Your task to perform on an android device: turn on showing notifications on the lock screen Image 0: 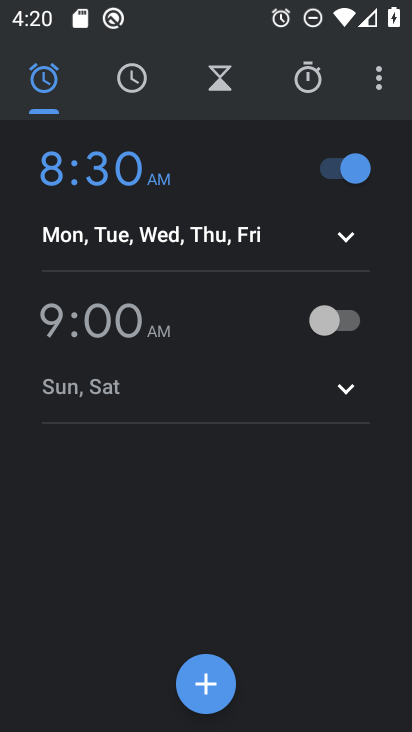
Step 0: press home button
Your task to perform on an android device: turn on showing notifications on the lock screen Image 1: 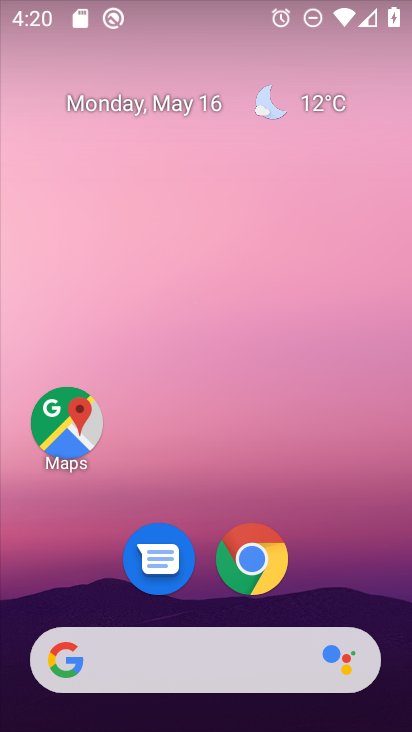
Step 1: drag from (342, 556) to (250, 29)
Your task to perform on an android device: turn on showing notifications on the lock screen Image 2: 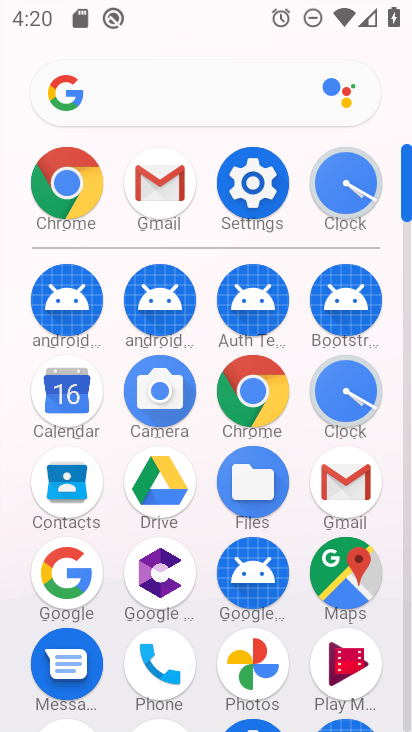
Step 2: click (261, 202)
Your task to perform on an android device: turn on showing notifications on the lock screen Image 3: 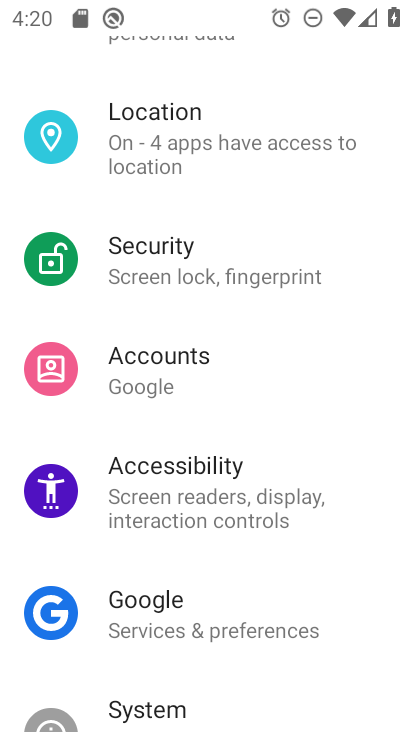
Step 3: drag from (245, 537) to (166, 202)
Your task to perform on an android device: turn on showing notifications on the lock screen Image 4: 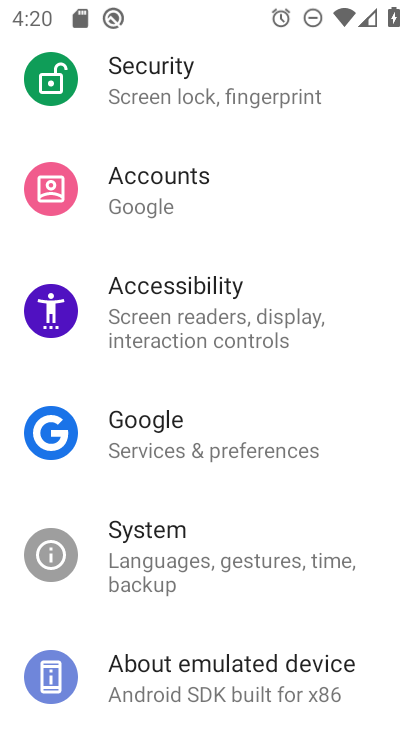
Step 4: drag from (171, 140) to (123, 670)
Your task to perform on an android device: turn on showing notifications on the lock screen Image 5: 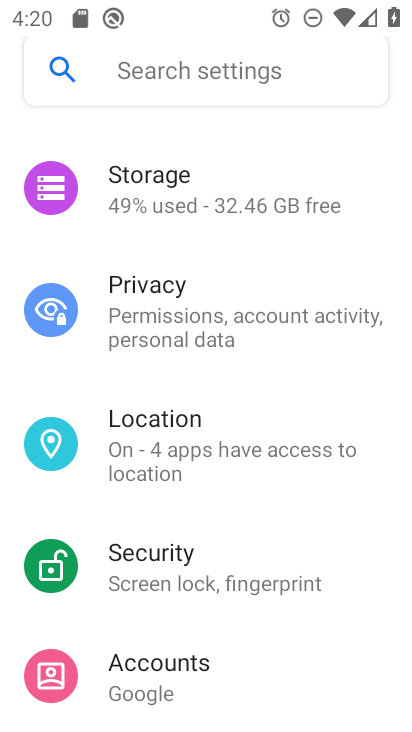
Step 5: drag from (165, 338) to (119, 712)
Your task to perform on an android device: turn on showing notifications on the lock screen Image 6: 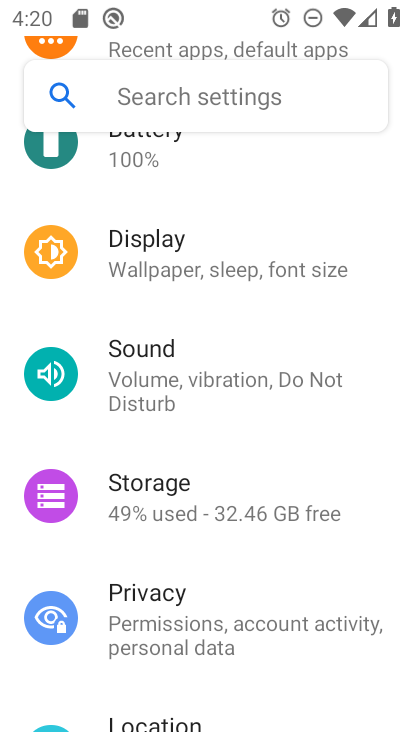
Step 6: drag from (159, 321) to (142, 632)
Your task to perform on an android device: turn on showing notifications on the lock screen Image 7: 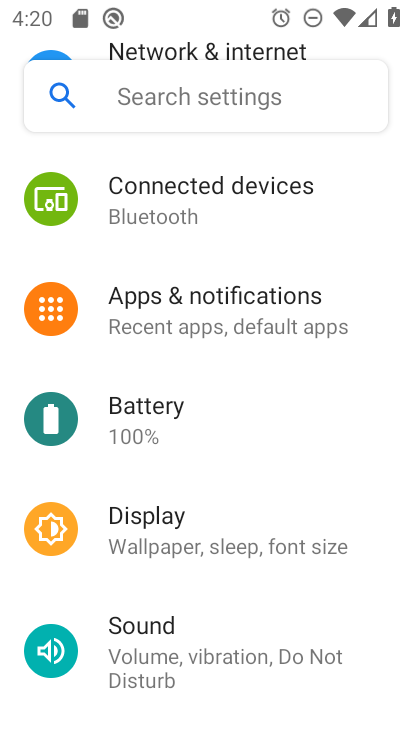
Step 7: click (203, 301)
Your task to perform on an android device: turn on showing notifications on the lock screen Image 8: 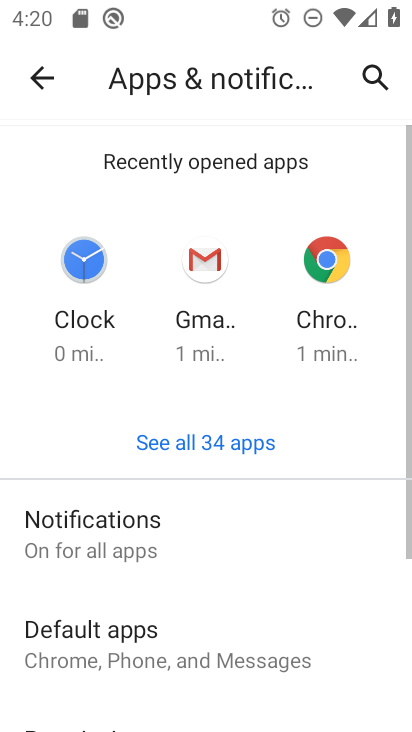
Step 8: click (178, 554)
Your task to perform on an android device: turn on showing notifications on the lock screen Image 9: 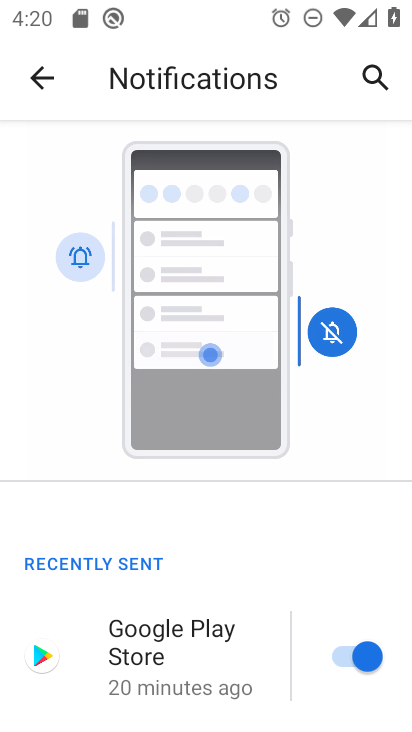
Step 9: drag from (181, 660) to (169, 288)
Your task to perform on an android device: turn on showing notifications on the lock screen Image 10: 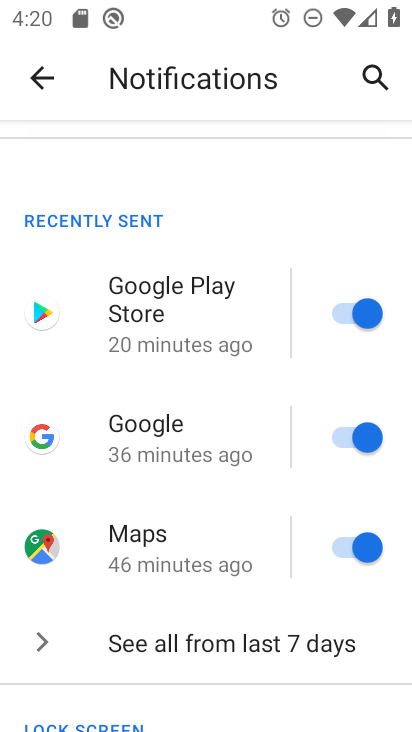
Step 10: drag from (170, 576) to (157, 270)
Your task to perform on an android device: turn on showing notifications on the lock screen Image 11: 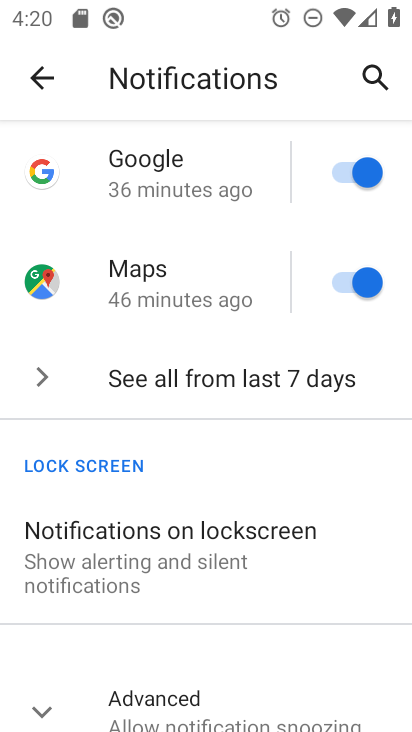
Step 11: drag from (203, 636) to (190, 419)
Your task to perform on an android device: turn on showing notifications on the lock screen Image 12: 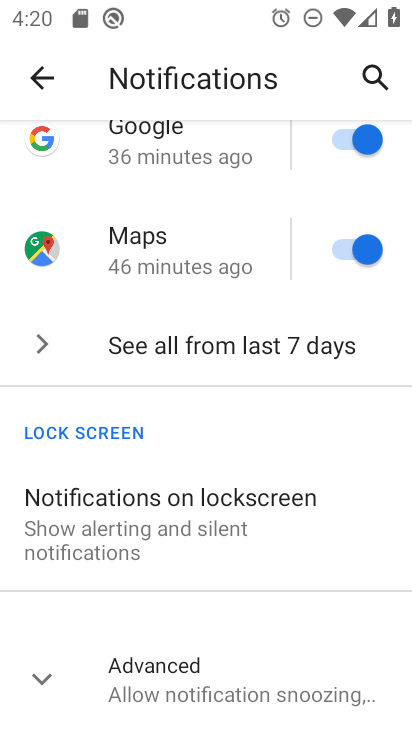
Step 12: click (179, 631)
Your task to perform on an android device: turn on showing notifications on the lock screen Image 13: 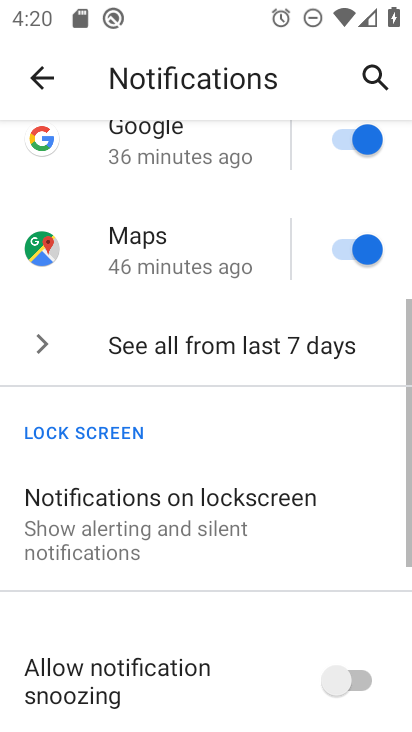
Step 13: drag from (185, 633) to (175, 316)
Your task to perform on an android device: turn on showing notifications on the lock screen Image 14: 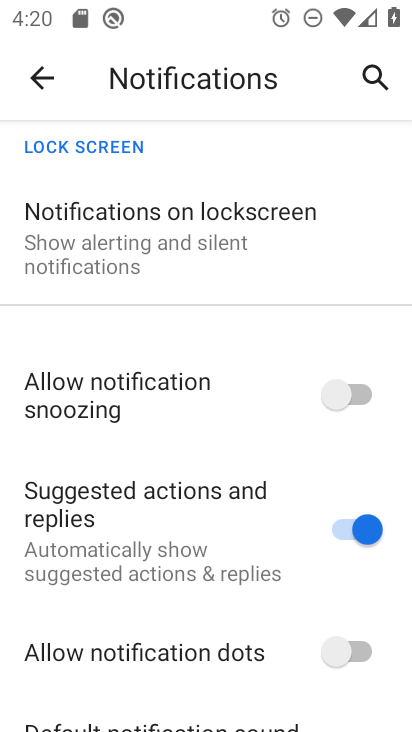
Step 14: click (188, 229)
Your task to perform on an android device: turn on showing notifications on the lock screen Image 15: 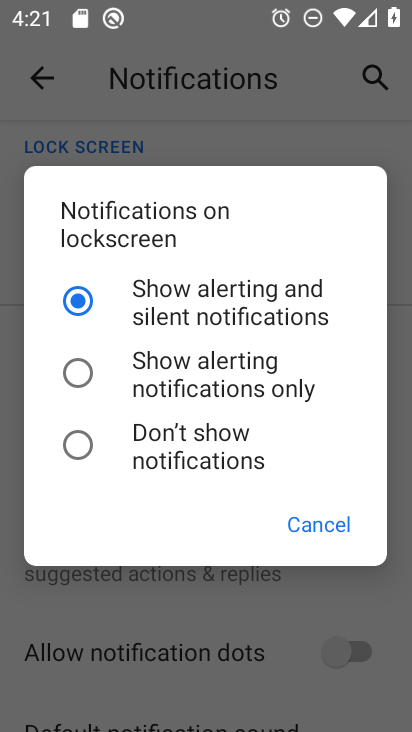
Step 15: click (206, 394)
Your task to perform on an android device: turn on showing notifications on the lock screen Image 16: 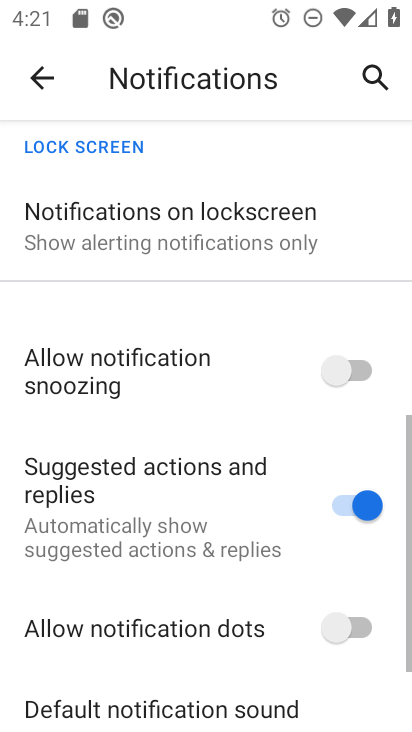
Step 16: task complete